Your task to perform on an android device: Go to Google Image 0: 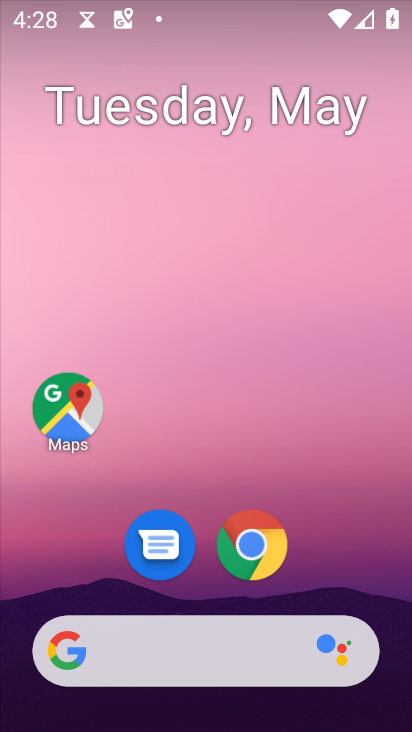
Step 0: drag from (327, 570) to (272, 100)
Your task to perform on an android device: Go to Google Image 1: 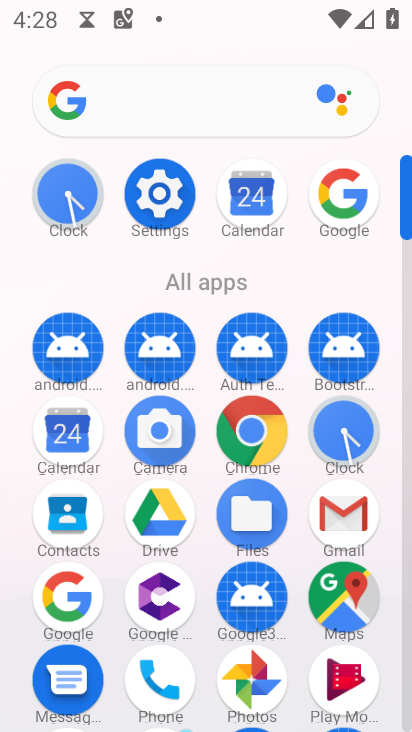
Step 1: click (338, 192)
Your task to perform on an android device: Go to Google Image 2: 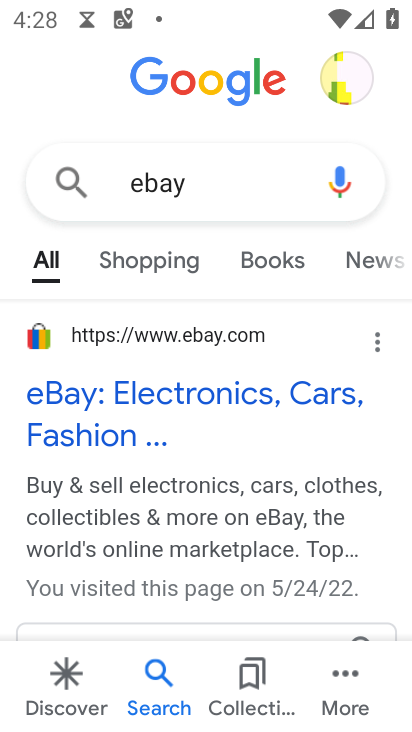
Step 2: task complete